Your task to perform on an android device: Is it going to rain tomorrow? Image 0: 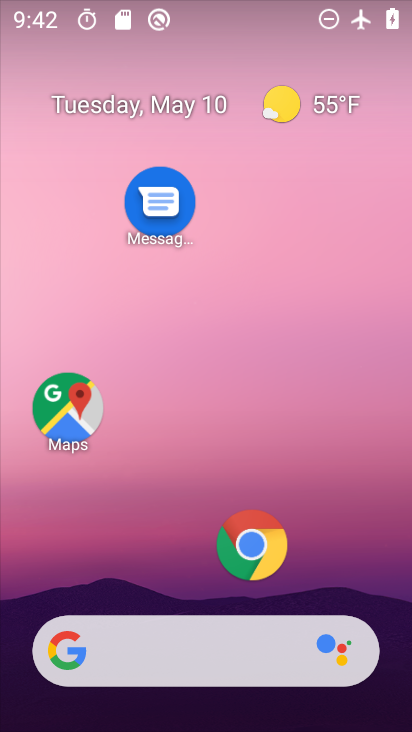
Step 0: drag from (187, 582) to (312, 127)
Your task to perform on an android device: Is it going to rain tomorrow? Image 1: 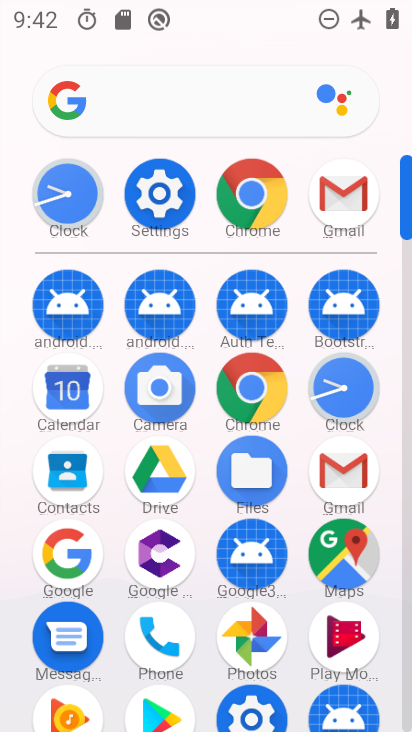
Step 1: drag from (195, 503) to (189, 438)
Your task to perform on an android device: Is it going to rain tomorrow? Image 2: 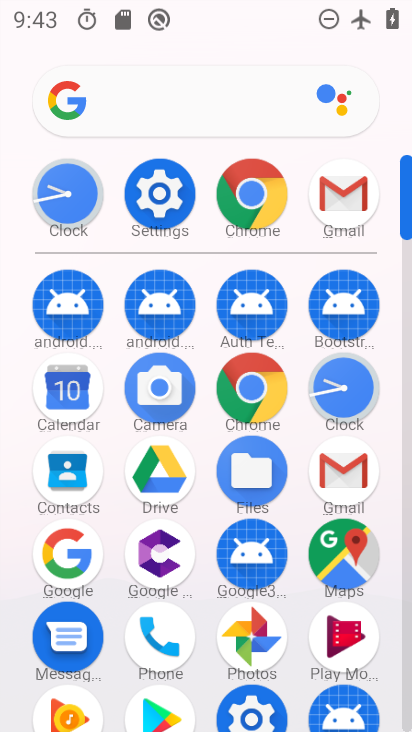
Step 2: click (70, 561)
Your task to perform on an android device: Is it going to rain tomorrow? Image 3: 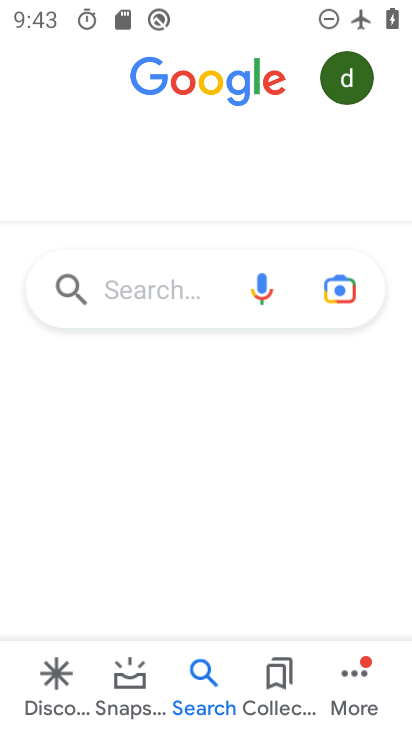
Step 3: click (140, 298)
Your task to perform on an android device: Is it going to rain tomorrow? Image 4: 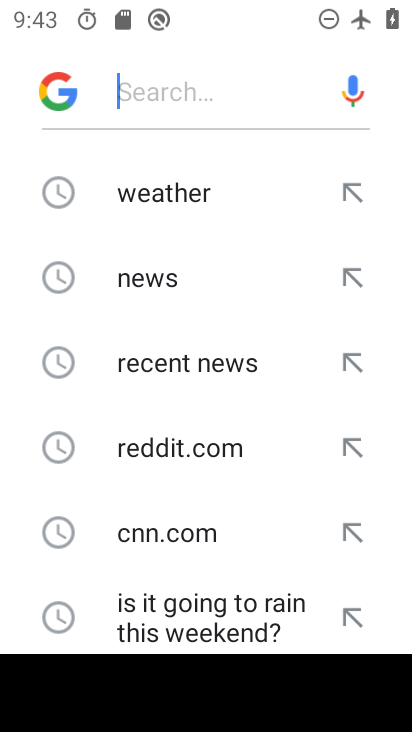
Step 4: click (135, 195)
Your task to perform on an android device: Is it going to rain tomorrow? Image 5: 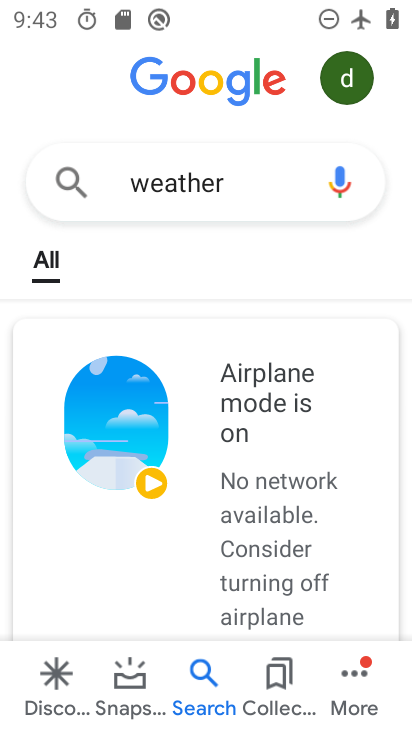
Step 5: task complete